Your task to perform on an android device: turn on javascript in the chrome app Image 0: 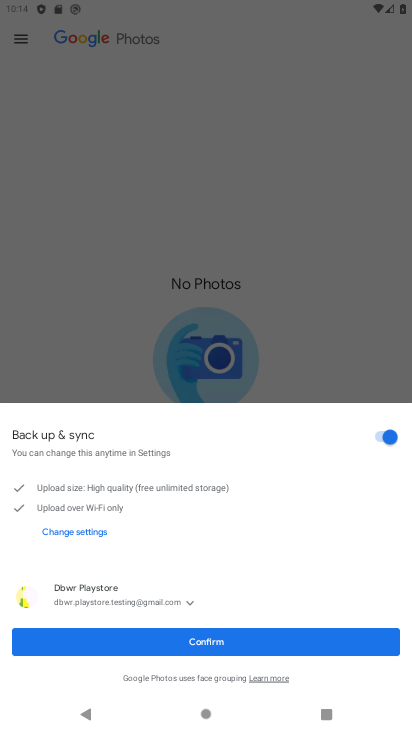
Step 0: press home button
Your task to perform on an android device: turn on javascript in the chrome app Image 1: 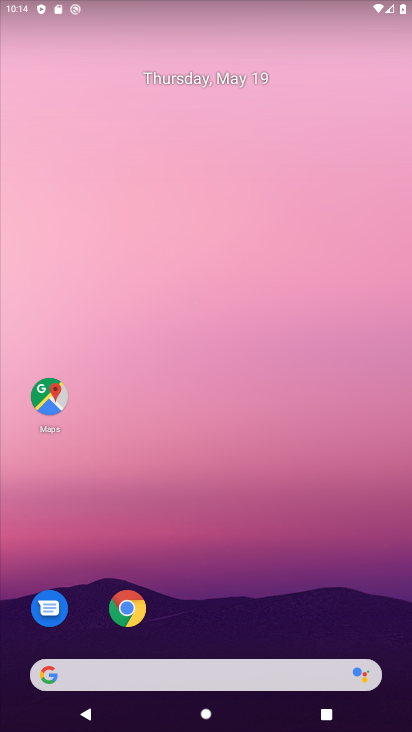
Step 1: click (119, 602)
Your task to perform on an android device: turn on javascript in the chrome app Image 2: 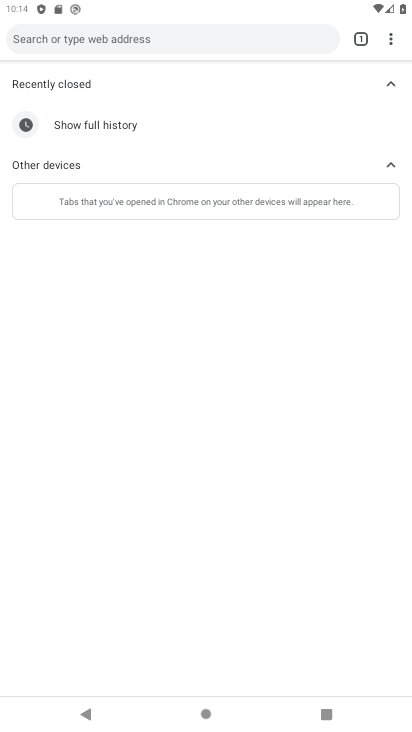
Step 2: click (389, 30)
Your task to perform on an android device: turn on javascript in the chrome app Image 3: 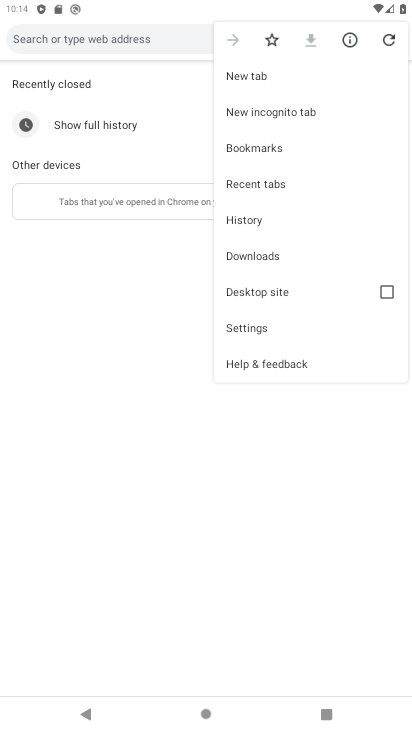
Step 3: click (246, 329)
Your task to perform on an android device: turn on javascript in the chrome app Image 4: 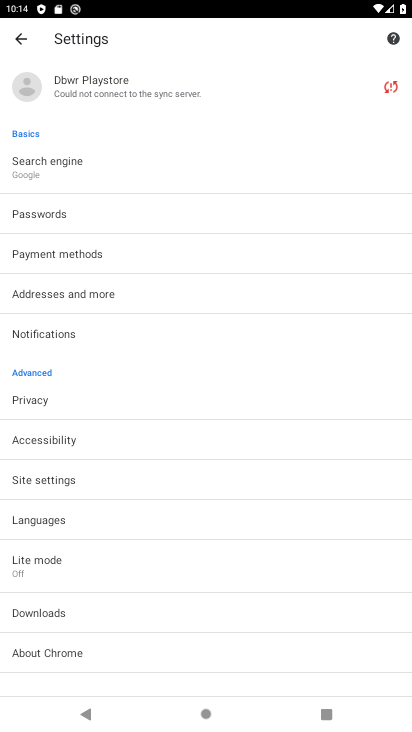
Step 4: click (66, 477)
Your task to perform on an android device: turn on javascript in the chrome app Image 5: 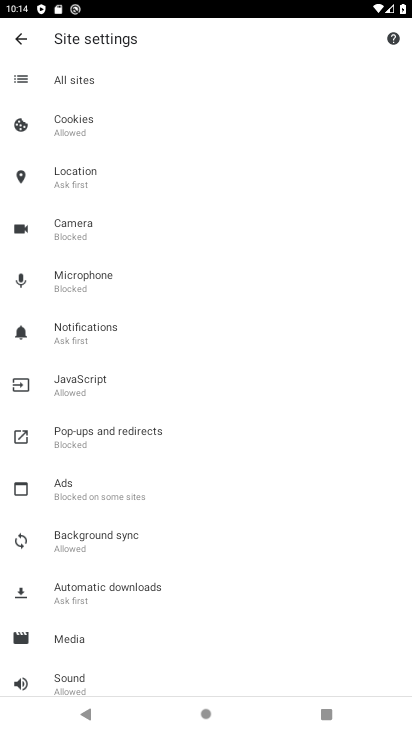
Step 5: click (73, 380)
Your task to perform on an android device: turn on javascript in the chrome app Image 6: 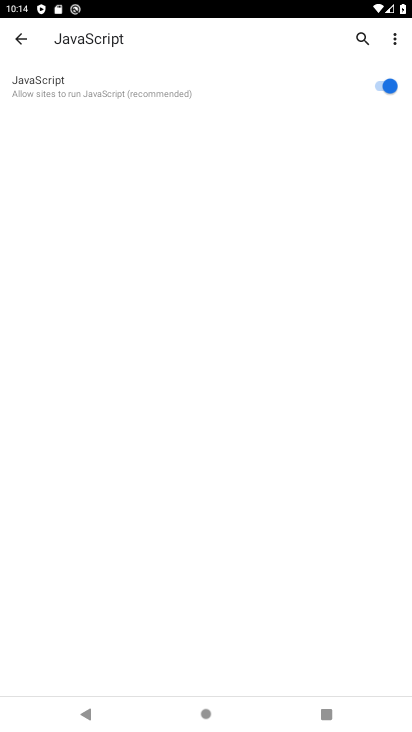
Step 6: task complete